Your task to perform on an android device: open a new tab in the chrome app Image 0: 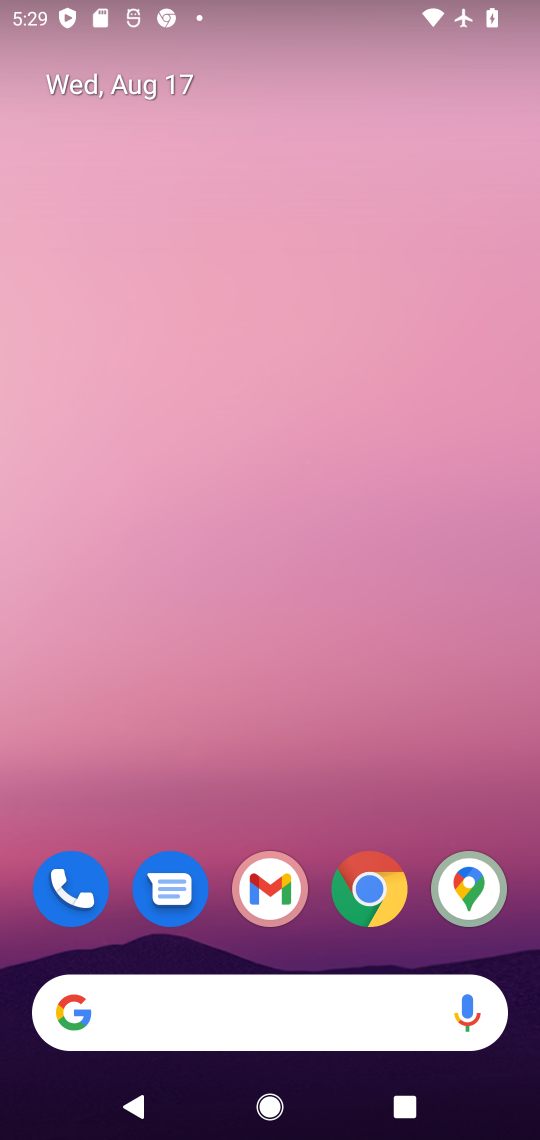
Step 0: click (368, 887)
Your task to perform on an android device: open a new tab in the chrome app Image 1: 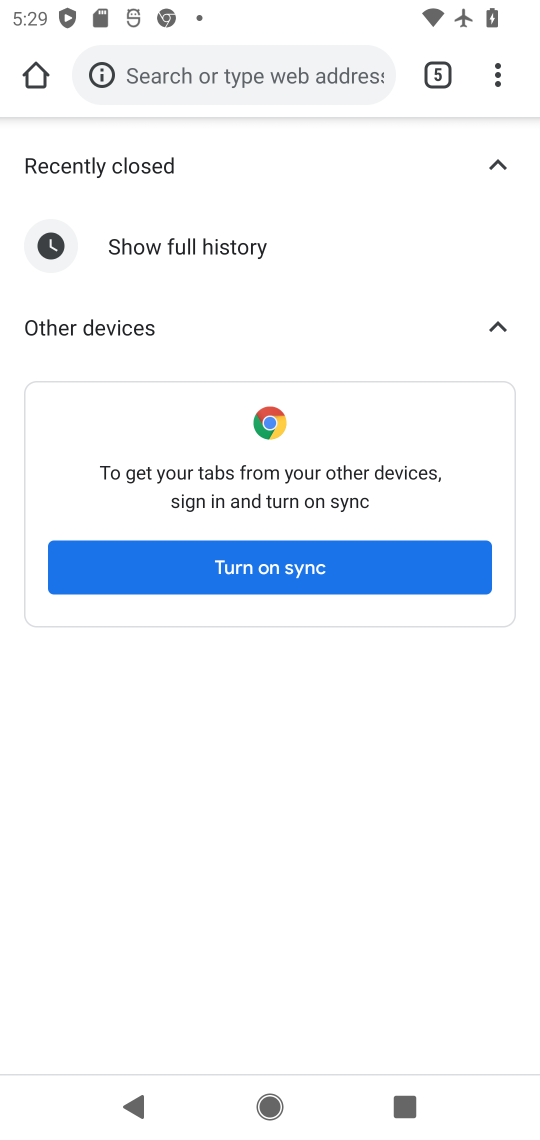
Step 1: click (500, 64)
Your task to perform on an android device: open a new tab in the chrome app Image 2: 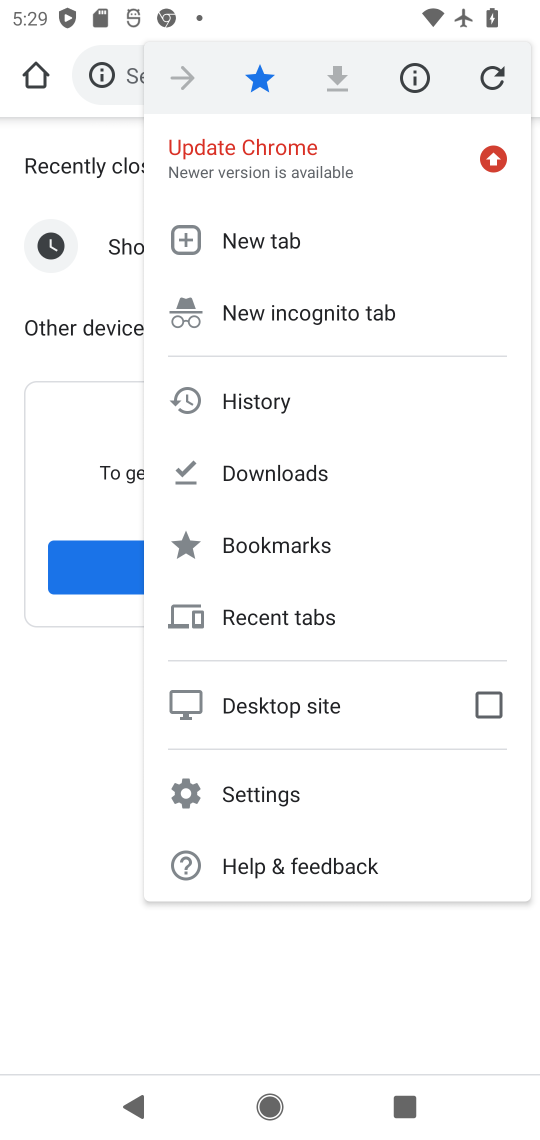
Step 2: click (281, 236)
Your task to perform on an android device: open a new tab in the chrome app Image 3: 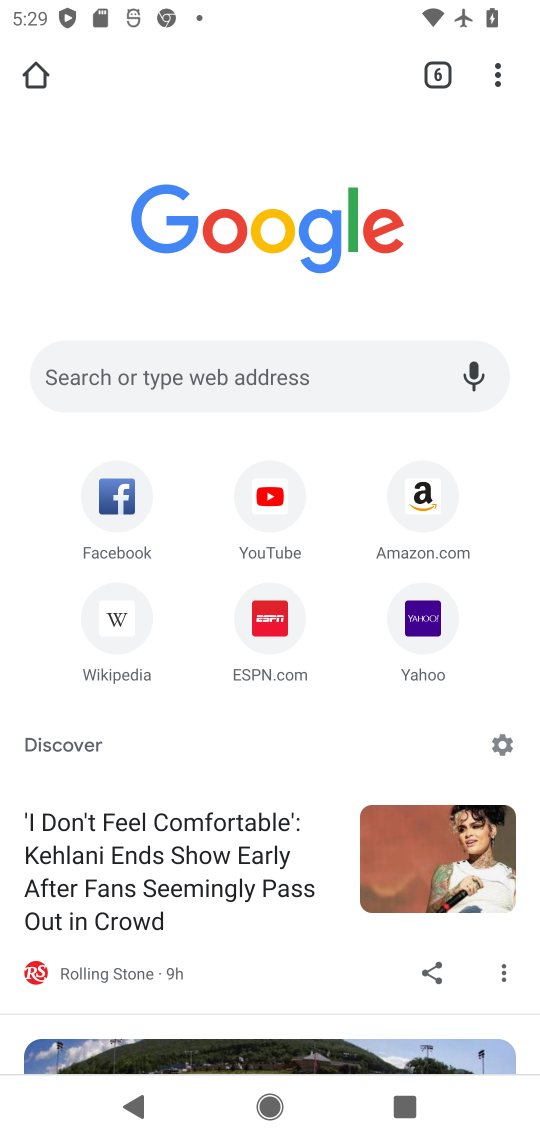
Step 3: task complete